Your task to perform on an android device: open chrome privacy settings Image 0: 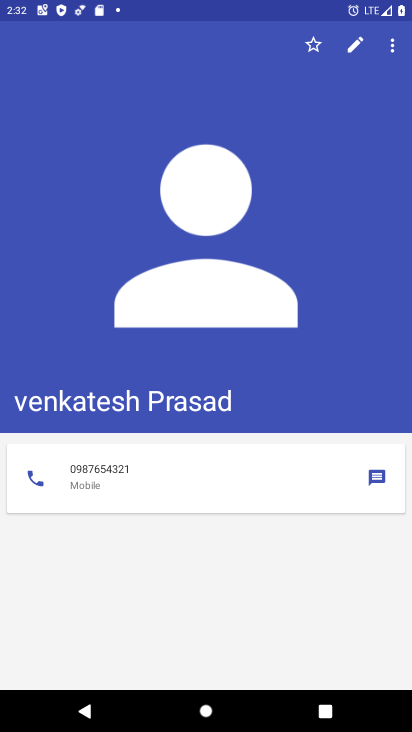
Step 0: press home button
Your task to perform on an android device: open chrome privacy settings Image 1: 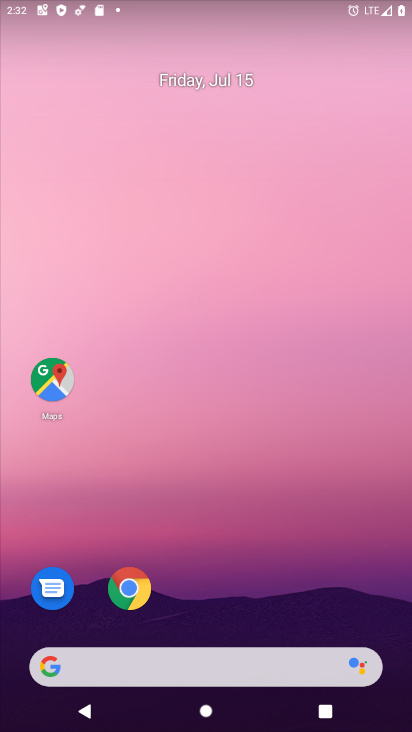
Step 1: click (131, 590)
Your task to perform on an android device: open chrome privacy settings Image 2: 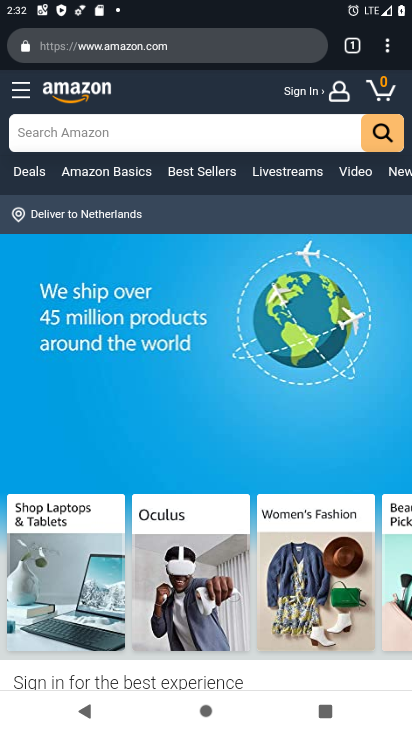
Step 2: click (389, 50)
Your task to perform on an android device: open chrome privacy settings Image 3: 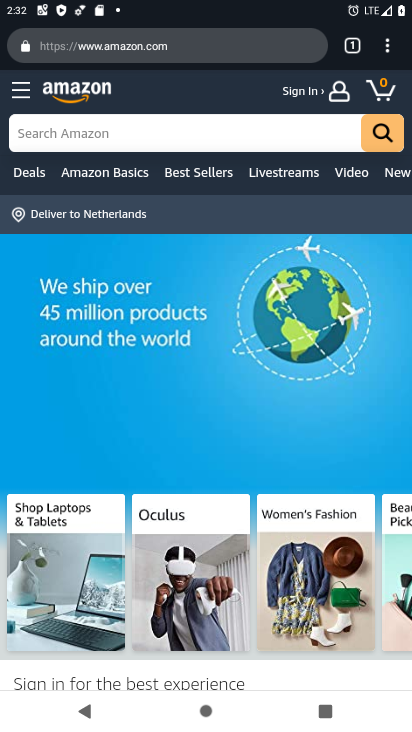
Step 3: click (393, 45)
Your task to perform on an android device: open chrome privacy settings Image 4: 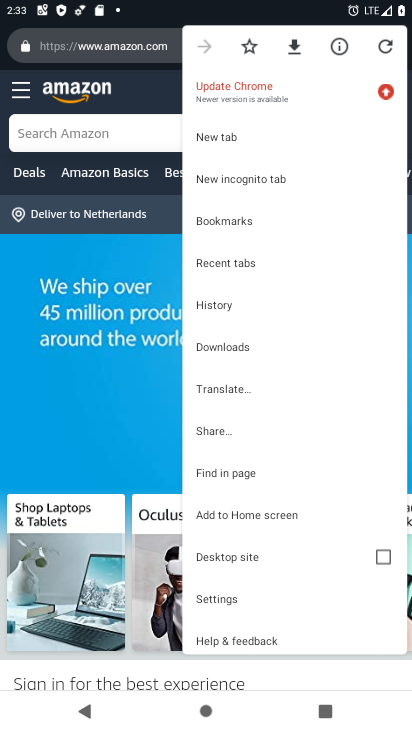
Step 4: click (226, 595)
Your task to perform on an android device: open chrome privacy settings Image 5: 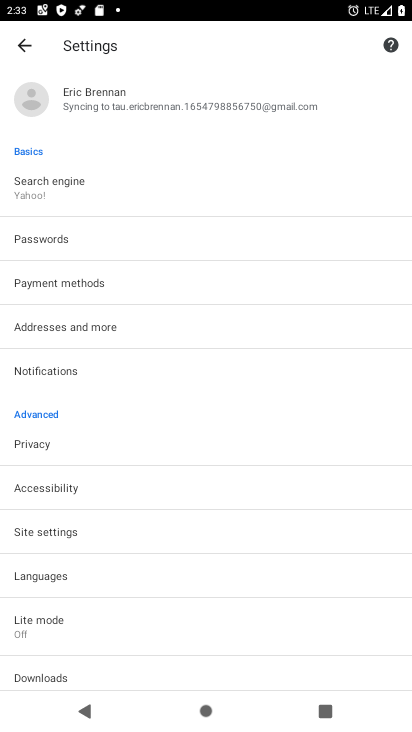
Step 5: click (41, 437)
Your task to perform on an android device: open chrome privacy settings Image 6: 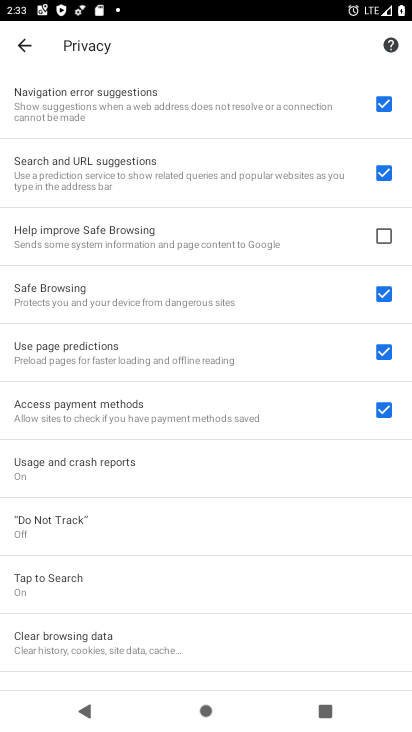
Step 6: task complete